Your task to perform on an android device: Go to eBay Image 0: 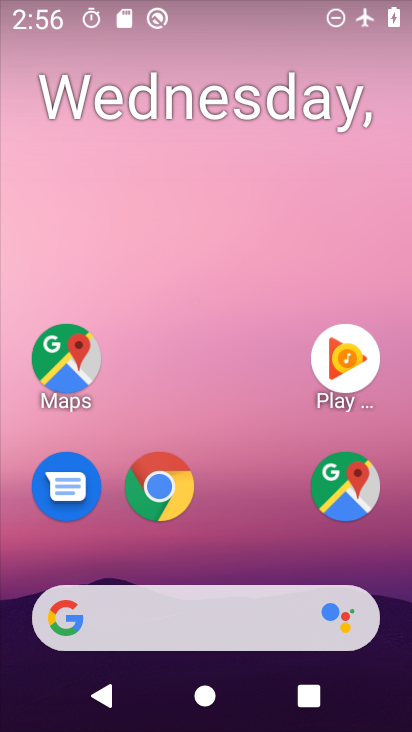
Step 0: press home button
Your task to perform on an android device: Go to eBay Image 1: 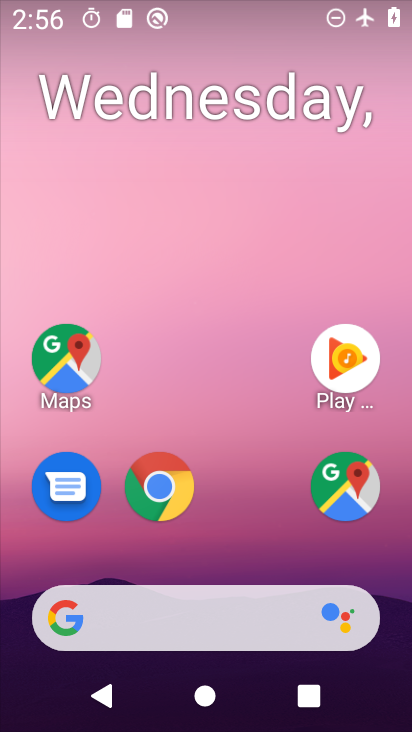
Step 1: drag from (266, 468) to (246, 94)
Your task to perform on an android device: Go to eBay Image 2: 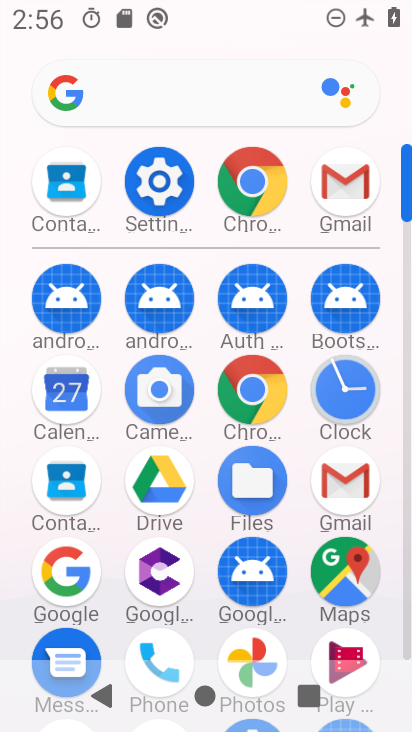
Step 2: click (255, 399)
Your task to perform on an android device: Go to eBay Image 3: 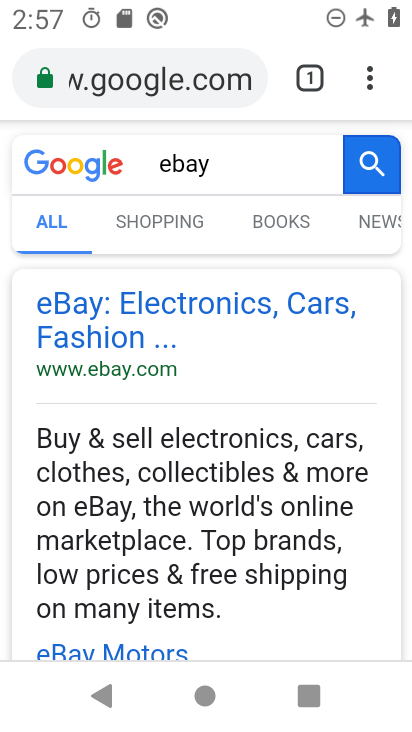
Step 3: task complete